Your task to perform on an android device: Open my contact list Image 0: 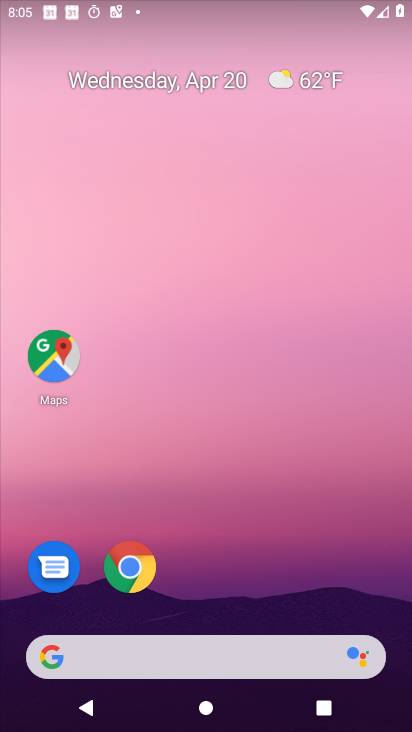
Step 0: drag from (197, 624) to (214, 291)
Your task to perform on an android device: Open my contact list Image 1: 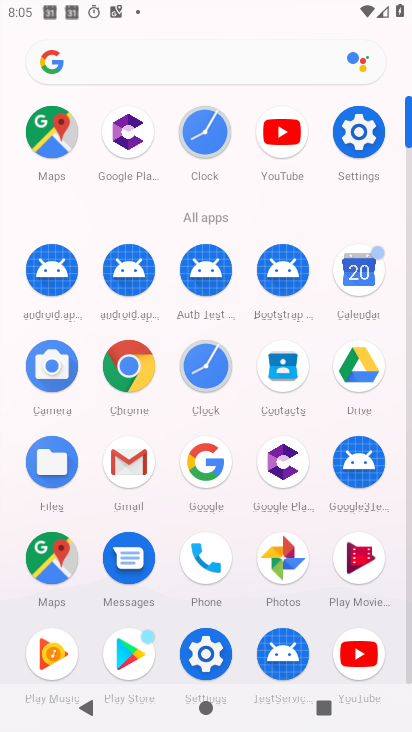
Step 1: click (272, 375)
Your task to perform on an android device: Open my contact list Image 2: 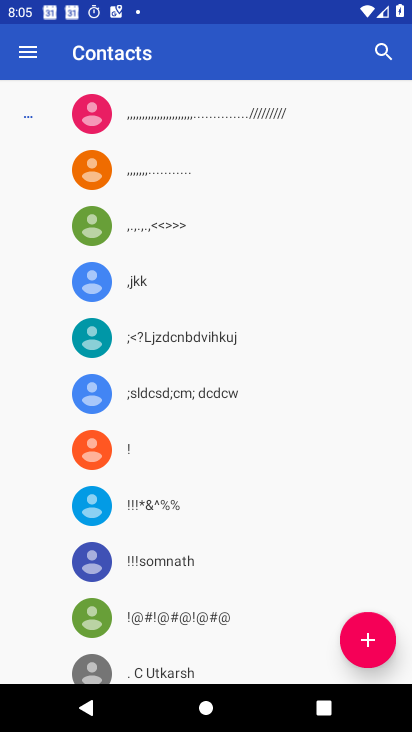
Step 2: task complete